Your task to perform on an android device: Go to Amazon Image 0: 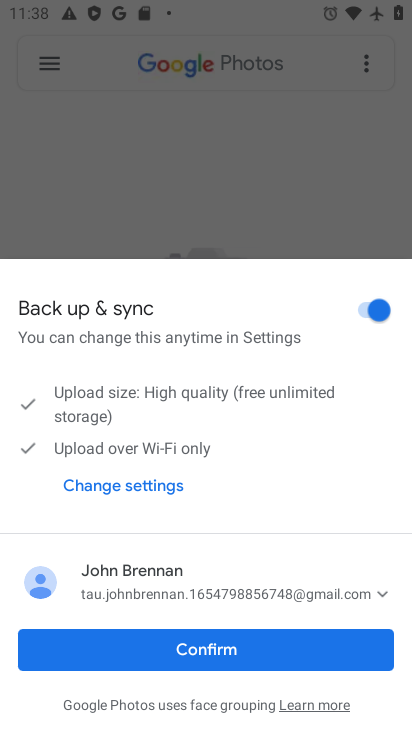
Step 0: press back button
Your task to perform on an android device: Go to Amazon Image 1: 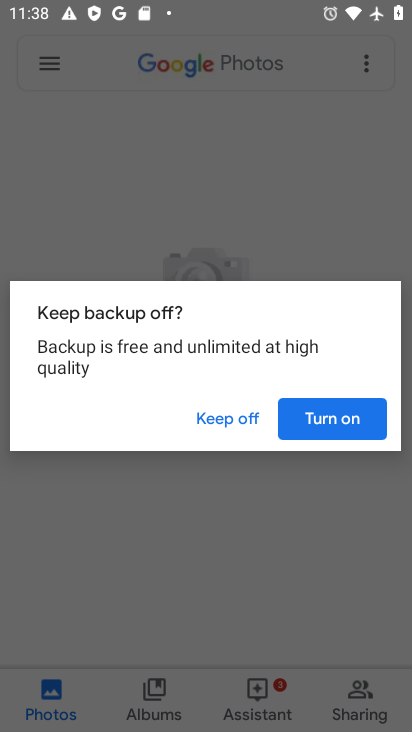
Step 1: press back button
Your task to perform on an android device: Go to Amazon Image 2: 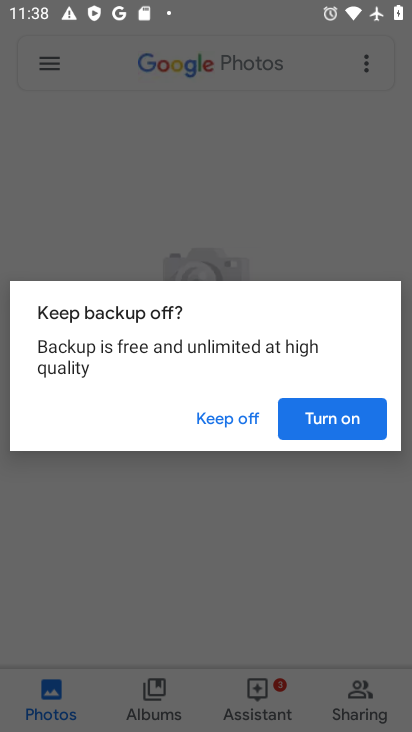
Step 2: press back button
Your task to perform on an android device: Go to Amazon Image 3: 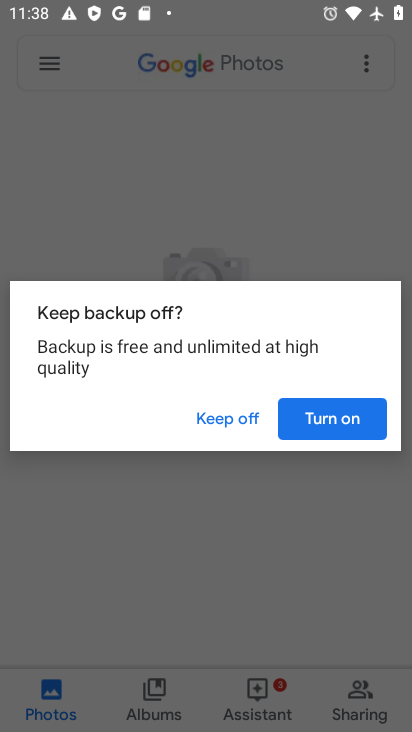
Step 3: press home button
Your task to perform on an android device: Go to Amazon Image 4: 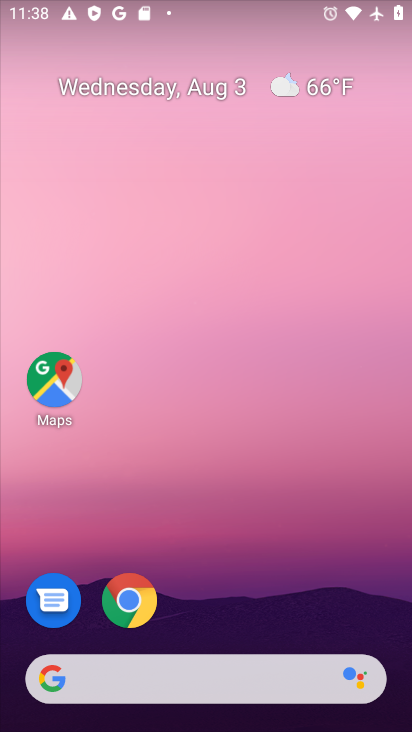
Step 4: click (142, 615)
Your task to perform on an android device: Go to Amazon Image 5: 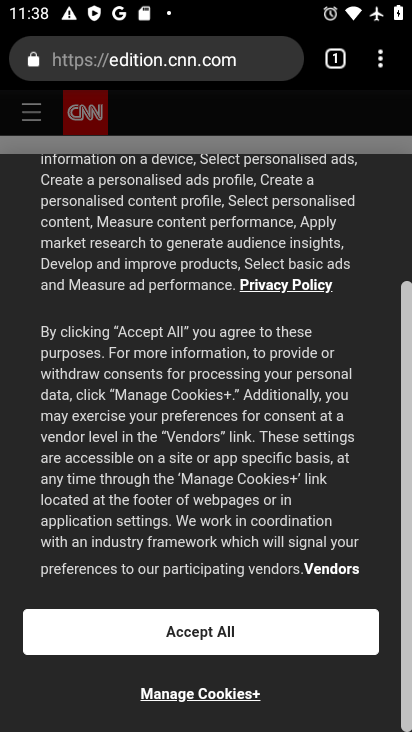
Step 5: click (338, 52)
Your task to perform on an android device: Go to Amazon Image 6: 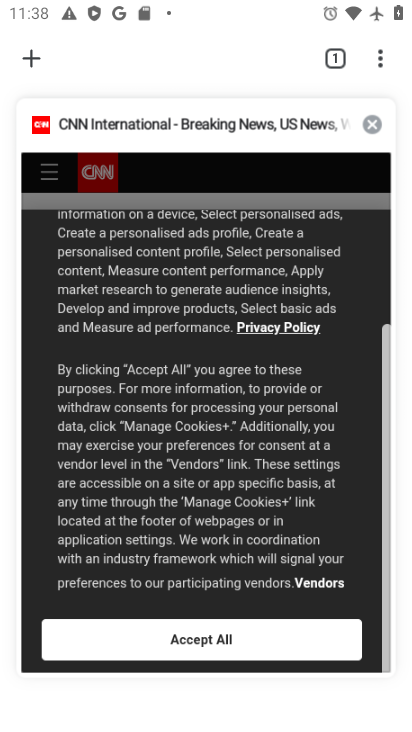
Step 6: click (33, 60)
Your task to perform on an android device: Go to Amazon Image 7: 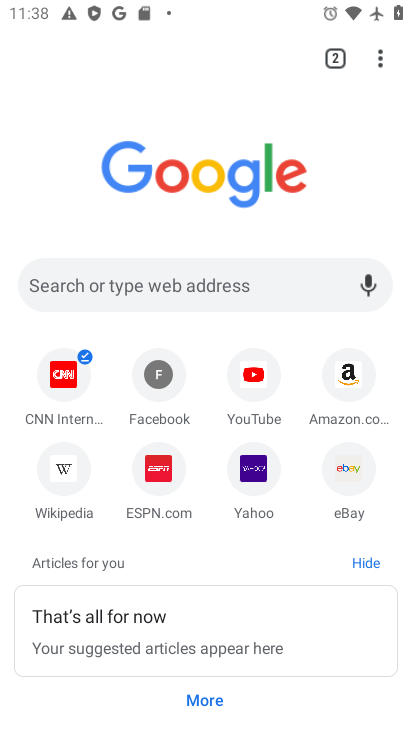
Step 7: click (349, 379)
Your task to perform on an android device: Go to Amazon Image 8: 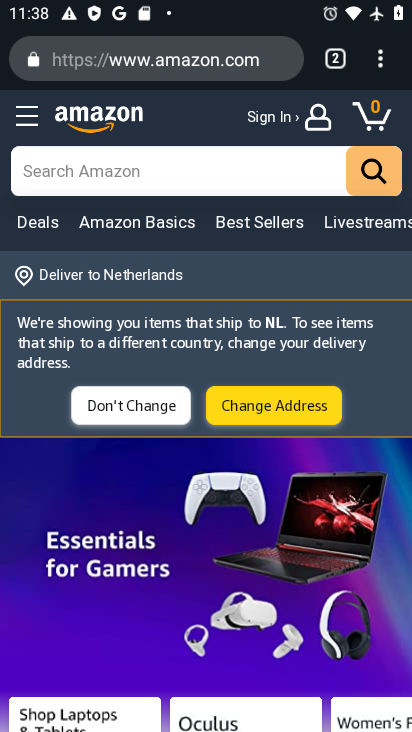
Step 8: task complete